Your task to perform on an android device: clear all cookies in the chrome app Image 0: 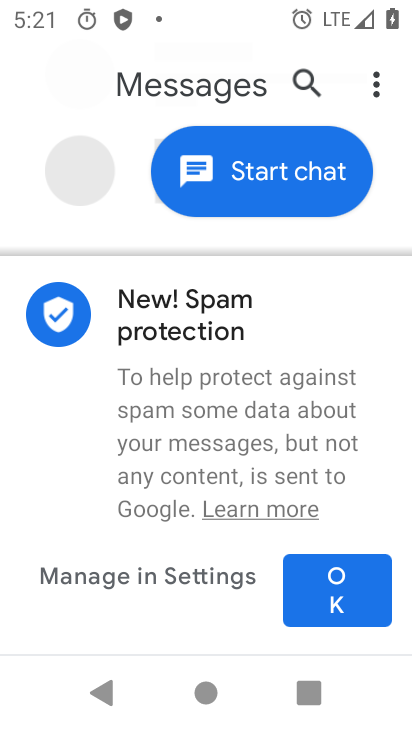
Step 0: press home button
Your task to perform on an android device: clear all cookies in the chrome app Image 1: 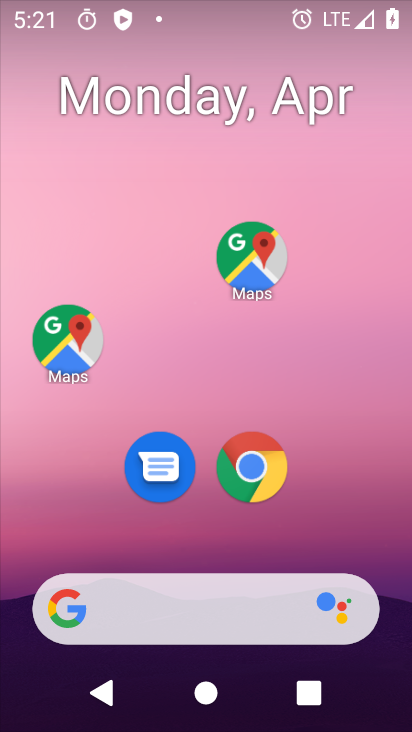
Step 1: click (262, 473)
Your task to perform on an android device: clear all cookies in the chrome app Image 2: 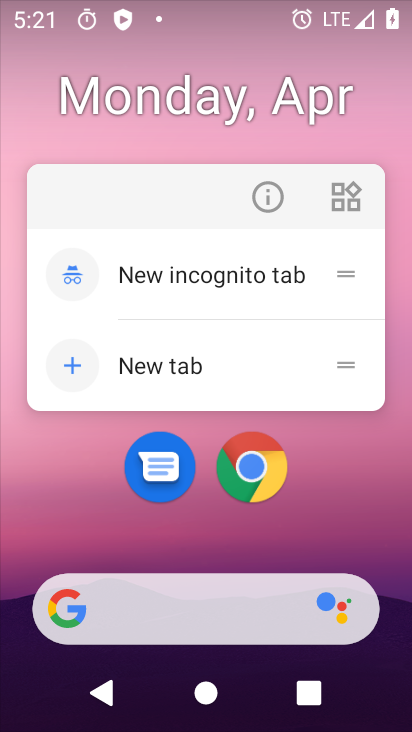
Step 2: click (262, 473)
Your task to perform on an android device: clear all cookies in the chrome app Image 3: 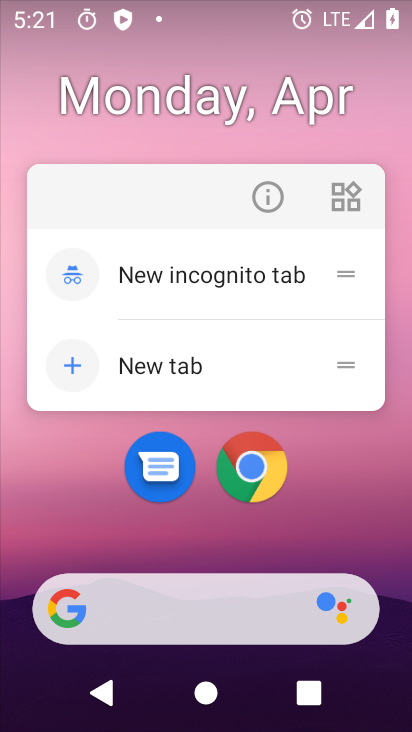
Step 3: click (262, 473)
Your task to perform on an android device: clear all cookies in the chrome app Image 4: 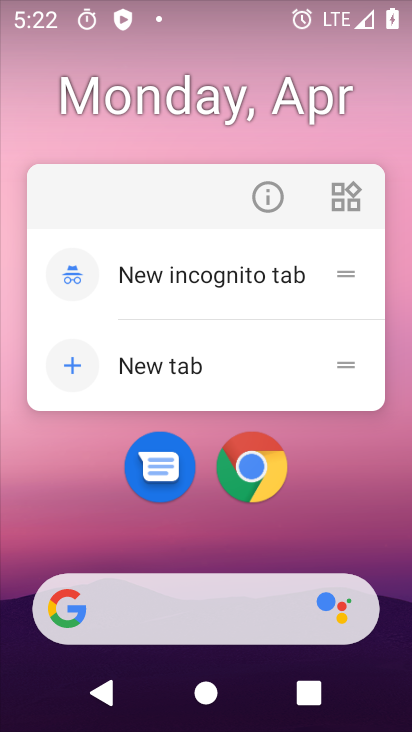
Step 4: click (257, 471)
Your task to perform on an android device: clear all cookies in the chrome app Image 5: 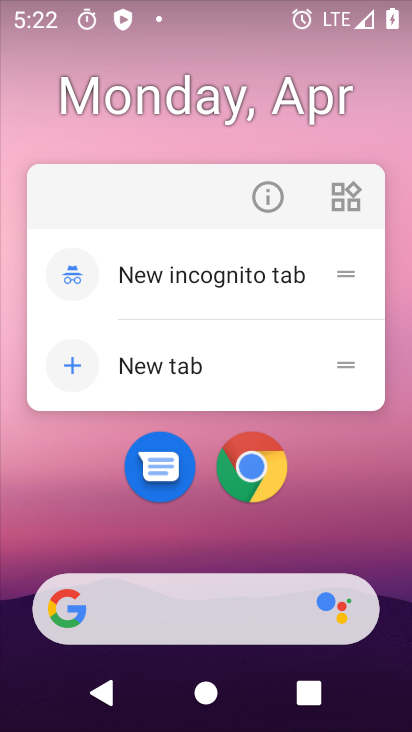
Step 5: click (257, 470)
Your task to perform on an android device: clear all cookies in the chrome app Image 6: 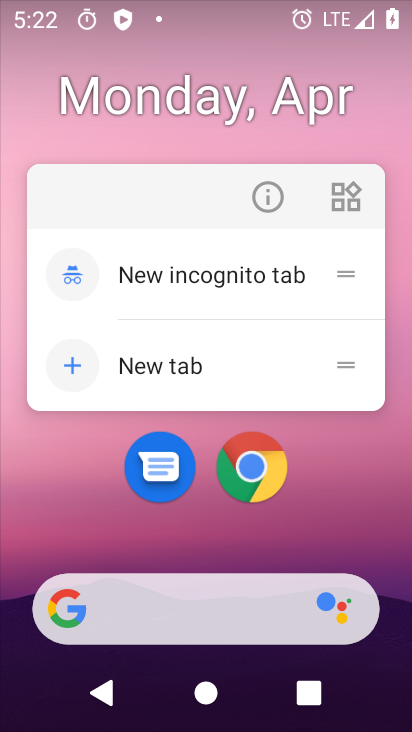
Step 6: click (256, 475)
Your task to perform on an android device: clear all cookies in the chrome app Image 7: 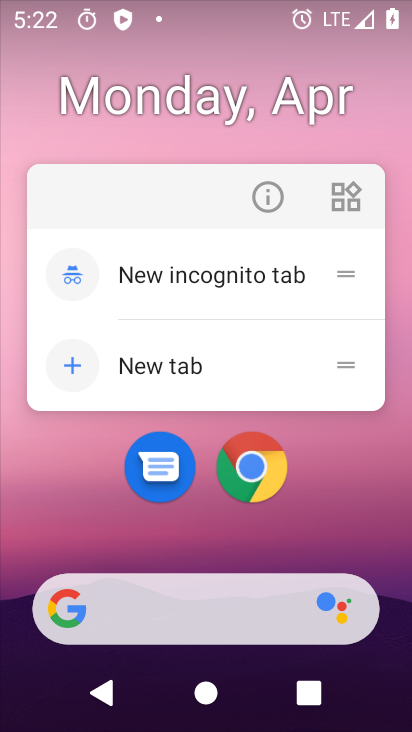
Step 7: click (256, 475)
Your task to perform on an android device: clear all cookies in the chrome app Image 8: 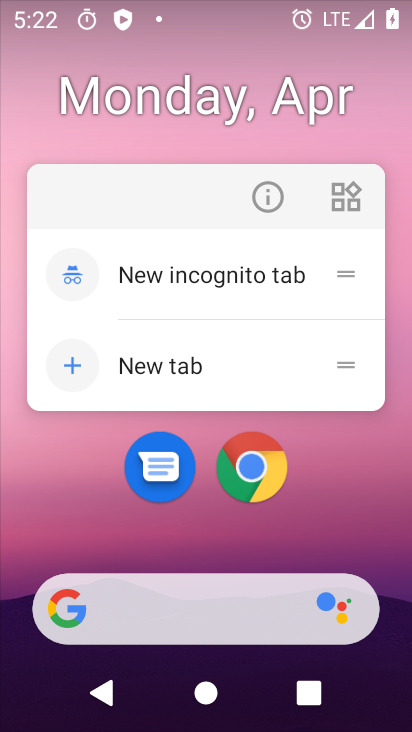
Step 8: click (256, 475)
Your task to perform on an android device: clear all cookies in the chrome app Image 9: 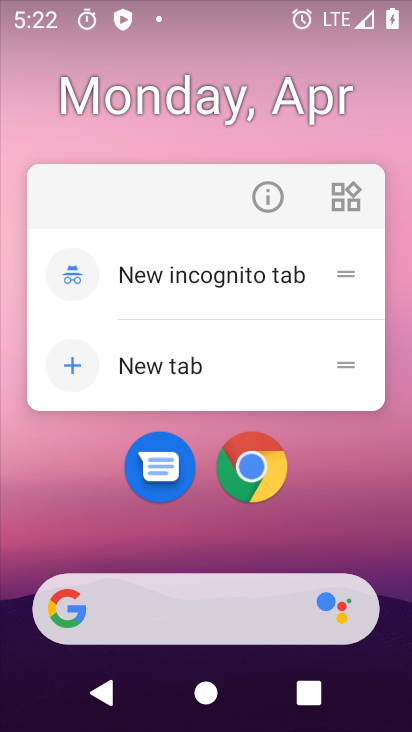
Step 9: click (268, 466)
Your task to perform on an android device: clear all cookies in the chrome app Image 10: 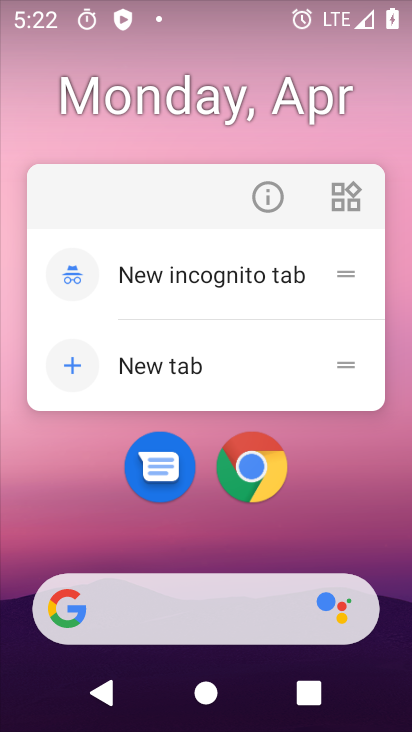
Step 10: task complete